Your task to perform on an android device: stop showing notifications on the lock screen Image 0: 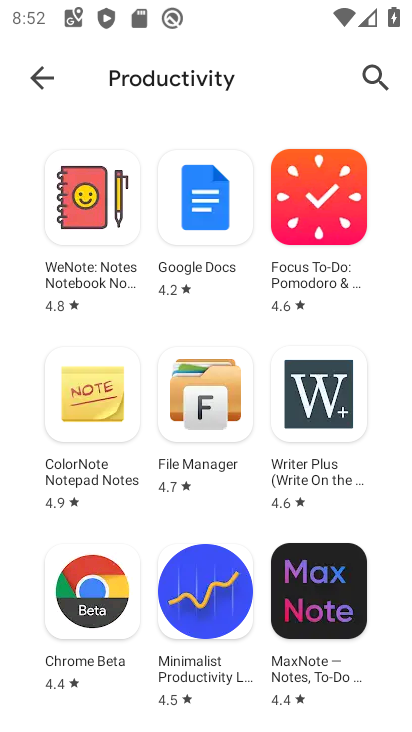
Step 0: press home button
Your task to perform on an android device: stop showing notifications on the lock screen Image 1: 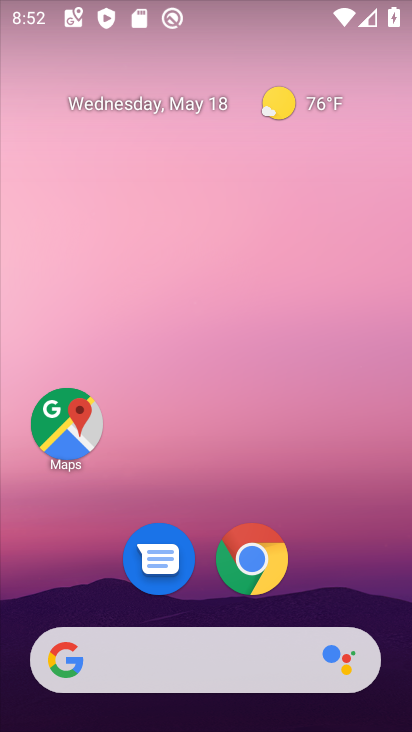
Step 1: drag from (209, 564) to (238, 98)
Your task to perform on an android device: stop showing notifications on the lock screen Image 2: 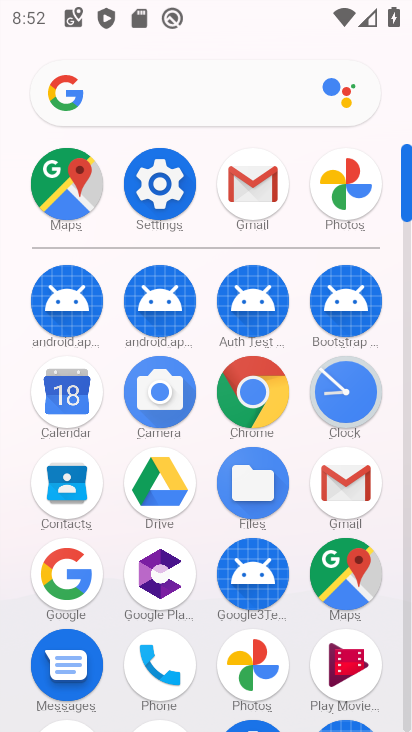
Step 2: click (159, 180)
Your task to perform on an android device: stop showing notifications on the lock screen Image 3: 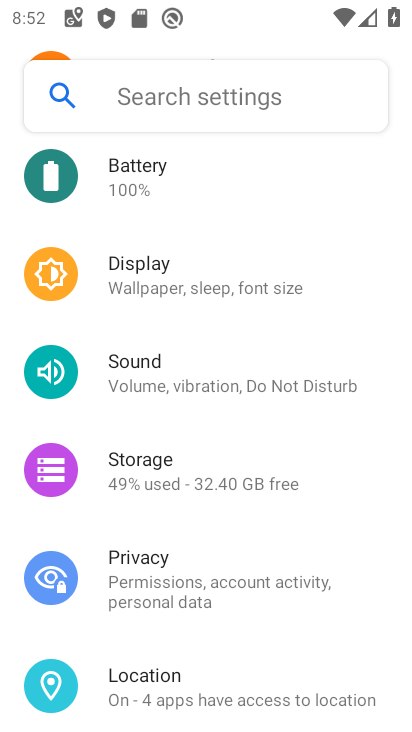
Step 3: drag from (171, 279) to (196, 568)
Your task to perform on an android device: stop showing notifications on the lock screen Image 4: 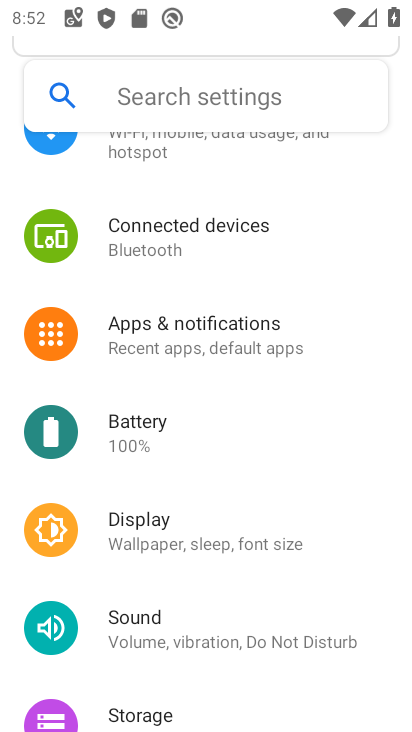
Step 4: click (176, 340)
Your task to perform on an android device: stop showing notifications on the lock screen Image 5: 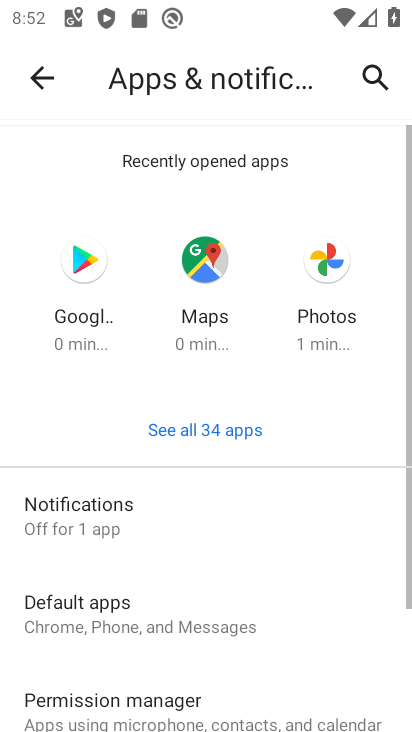
Step 5: click (122, 510)
Your task to perform on an android device: stop showing notifications on the lock screen Image 6: 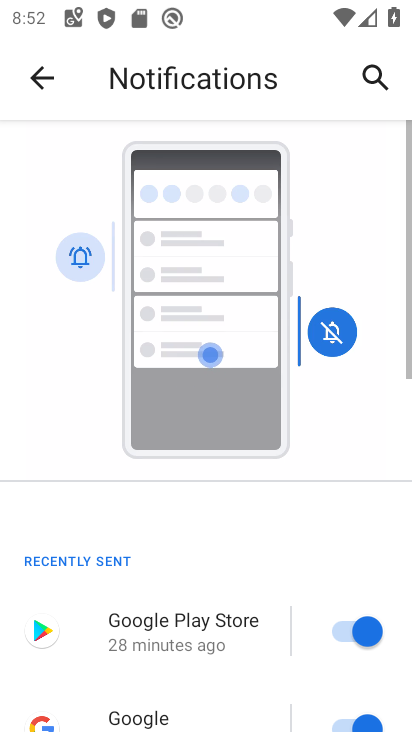
Step 6: drag from (210, 593) to (226, 5)
Your task to perform on an android device: stop showing notifications on the lock screen Image 7: 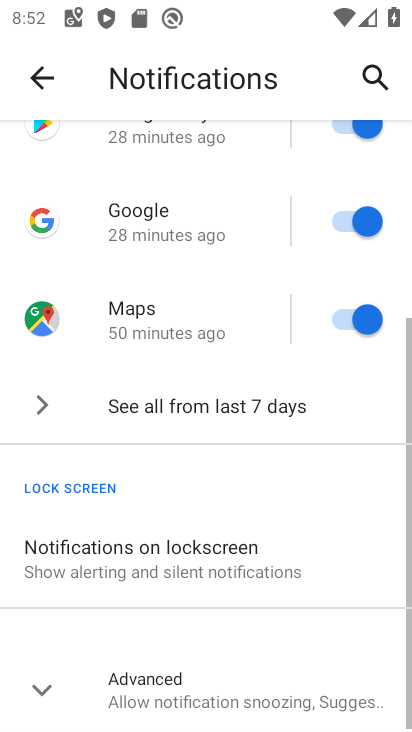
Step 7: click (183, 553)
Your task to perform on an android device: stop showing notifications on the lock screen Image 8: 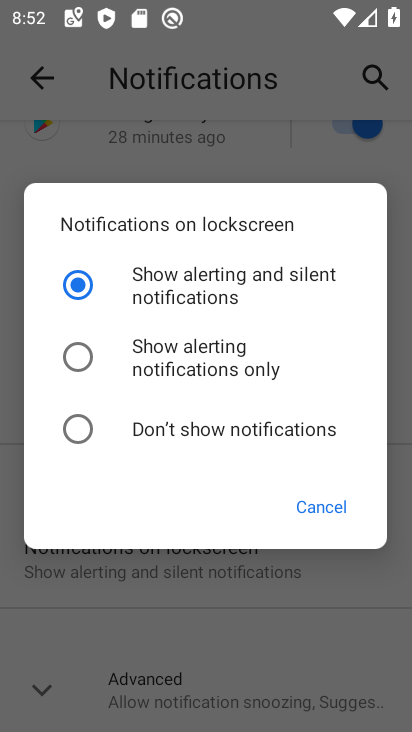
Step 8: click (71, 432)
Your task to perform on an android device: stop showing notifications on the lock screen Image 9: 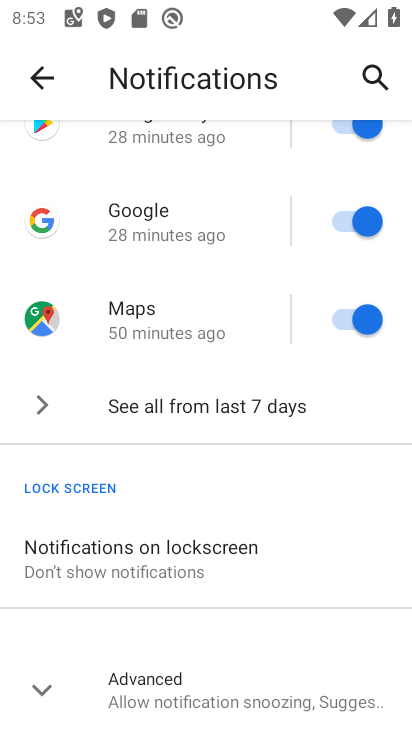
Step 9: task complete